Your task to perform on an android device: Go to CNN.com Image 0: 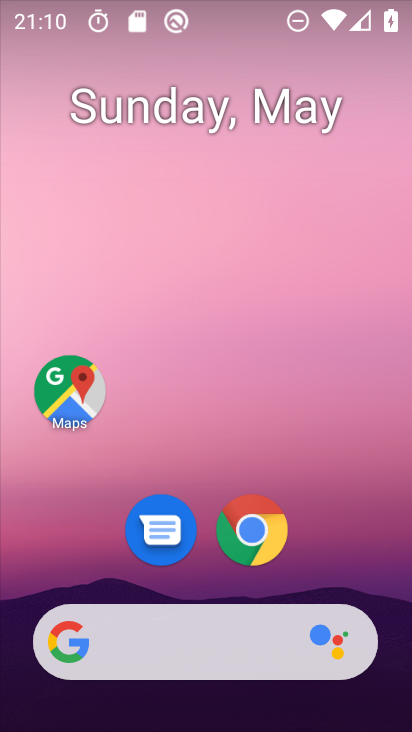
Step 0: drag from (235, 647) to (334, 56)
Your task to perform on an android device: Go to CNN.com Image 1: 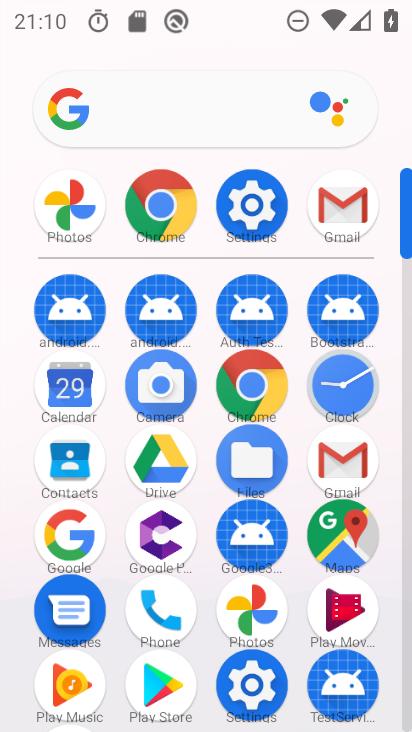
Step 1: click (168, 221)
Your task to perform on an android device: Go to CNN.com Image 2: 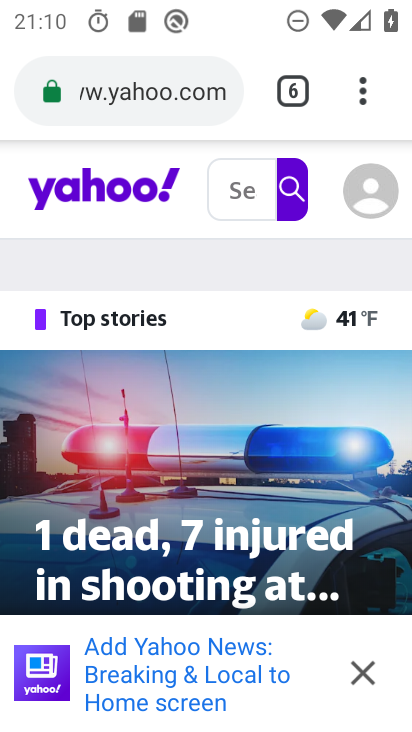
Step 2: click (298, 97)
Your task to perform on an android device: Go to CNN.com Image 3: 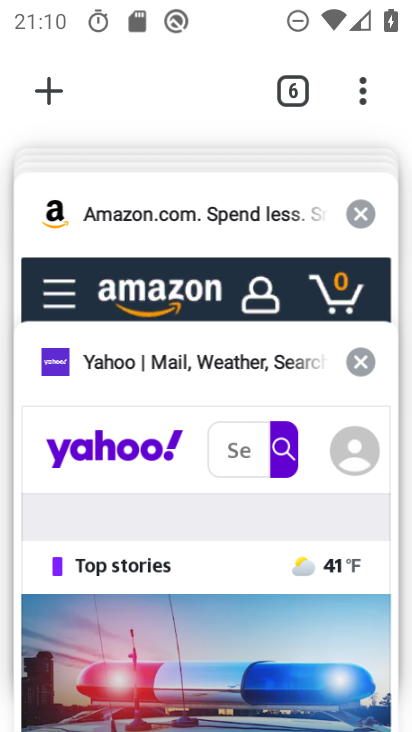
Step 3: click (47, 86)
Your task to perform on an android device: Go to CNN.com Image 4: 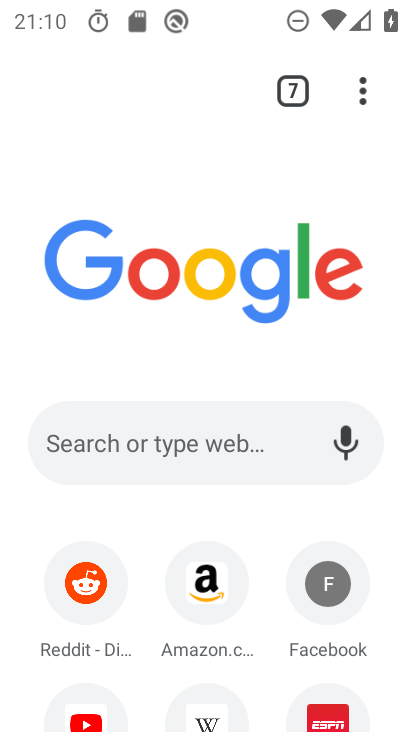
Step 4: click (128, 428)
Your task to perform on an android device: Go to CNN.com Image 5: 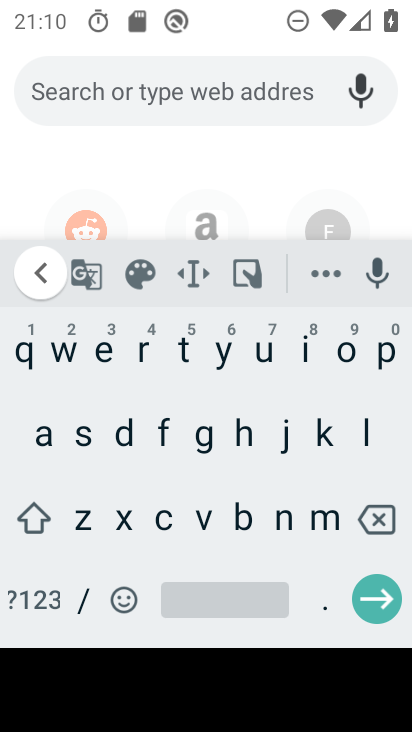
Step 5: click (162, 511)
Your task to perform on an android device: Go to CNN.com Image 6: 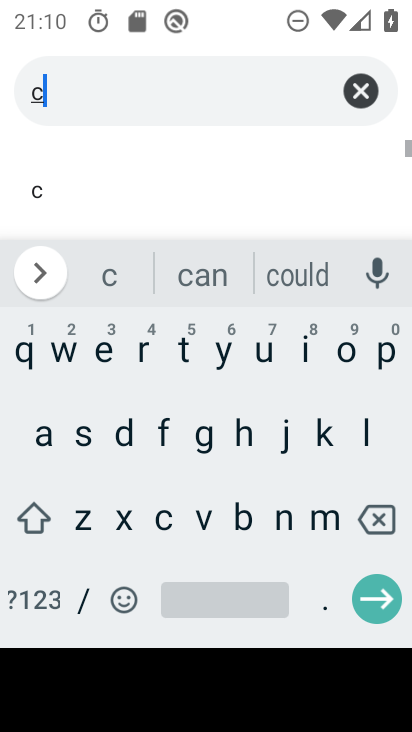
Step 6: click (278, 520)
Your task to perform on an android device: Go to CNN.com Image 7: 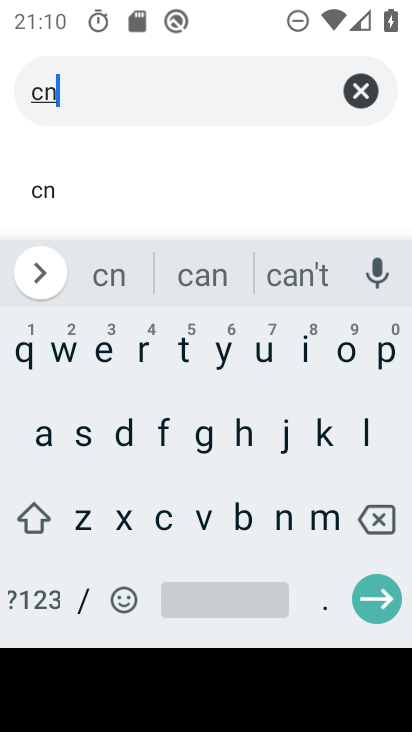
Step 7: click (278, 517)
Your task to perform on an android device: Go to CNN.com Image 8: 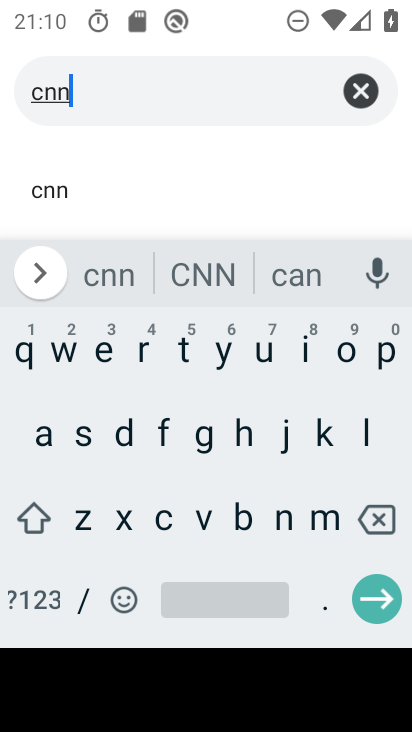
Step 8: click (325, 606)
Your task to perform on an android device: Go to CNN.com Image 9: 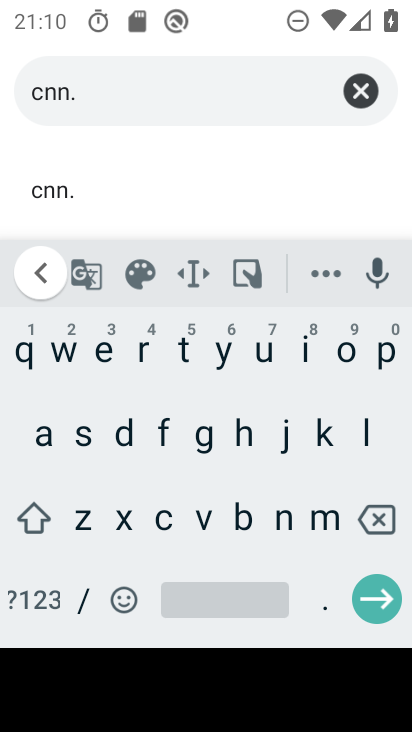
Step 9: click (154, 522)
Your task to perform on an android device: Go to CNN.com Image 10: 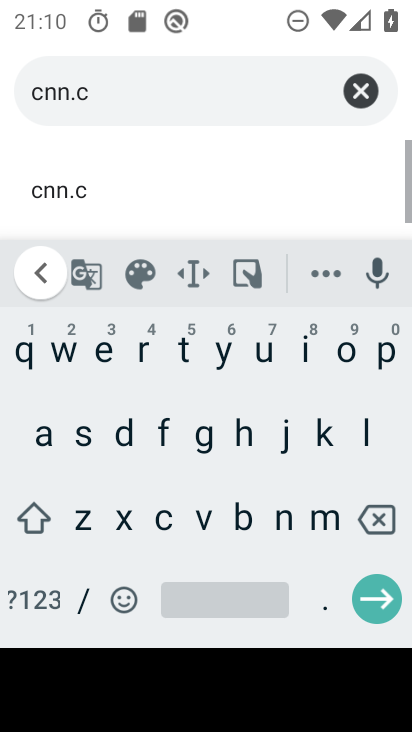
Step 10: click (344, 350)
Your task to perform on an android device: Go to CNN.com Image 11: 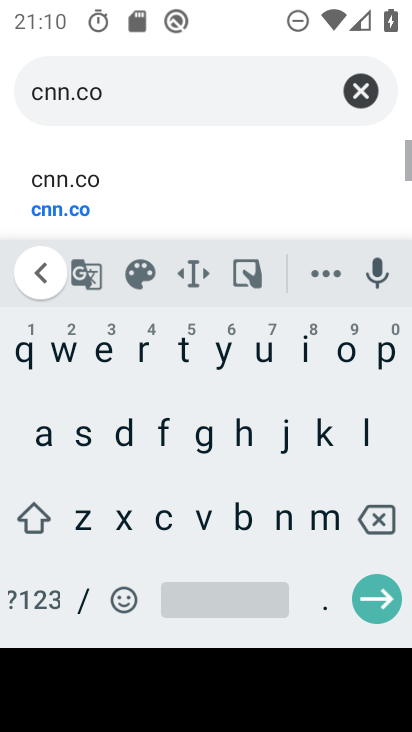
Step 11: click (322, 522)
Your task to perform on an android device: Go to CNN.com Image 12: 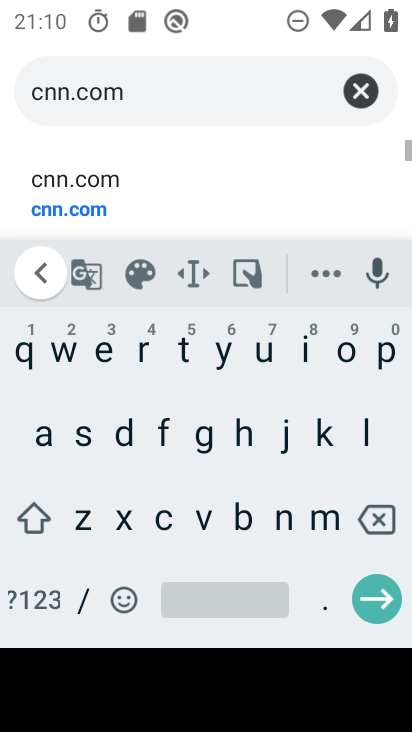
Step 12: click (124, 198)
Your task to perform on an android device: Go to CNN.com Image 13: 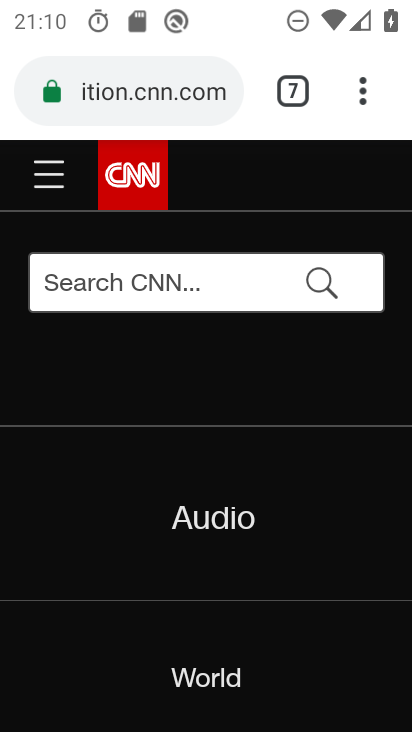
Step 13: task complete